Your task to perform on an android device: change the clock display to show seconds Image 0: 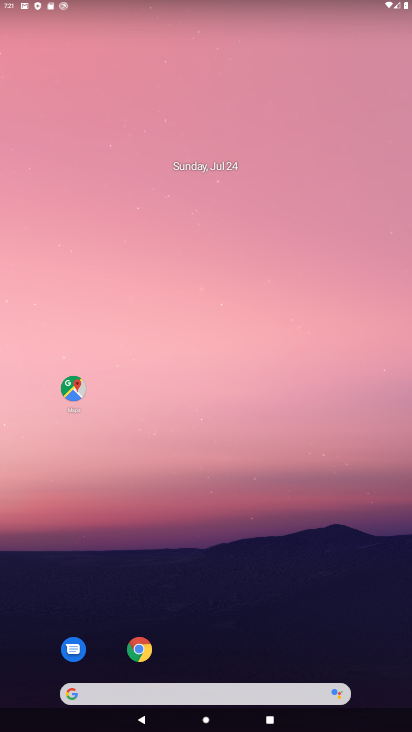
Step 0: drag from (232, 663) to (125, 189)
Your task to perform on an android device: change the clock display to show seconds Image 1: 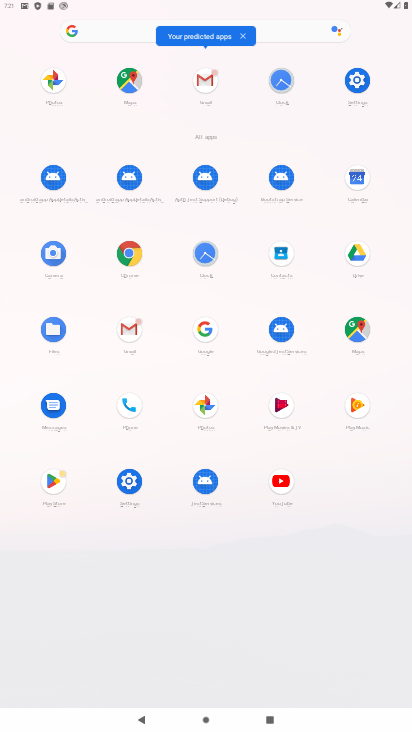
Step 1: click (195, 266)
Your task to perform on an android device: change the clock display to show seconds Image 2: 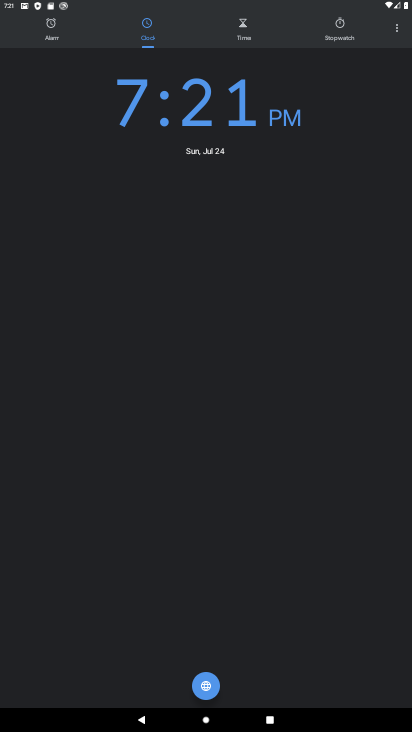
Step 2: click (400, 31)
Your task to perform on an android device: change the clock display to show seconds Image 3: 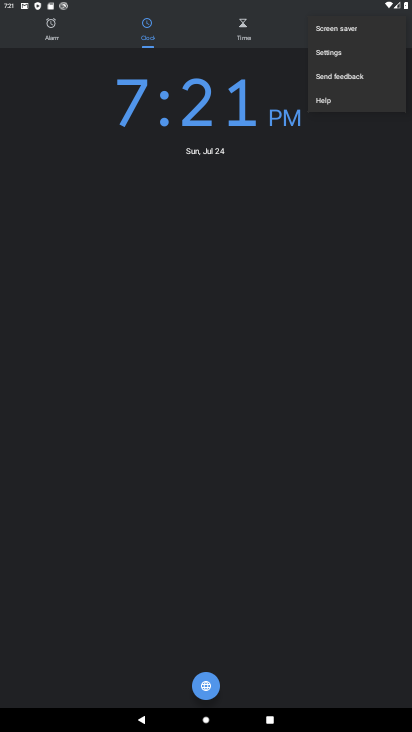
Step 3: click (322, 56)
Your task to perform on an android device: change the clock display to show seconds Image 4: 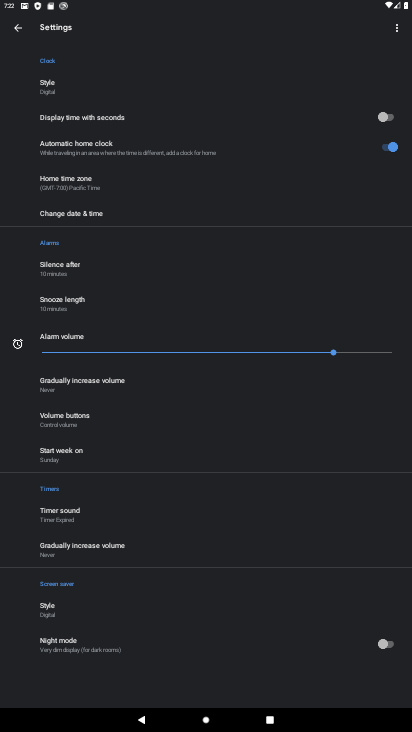
Step 4: click (381, 125)
Your task to perform on an android device: change the clock display to show seconds Image 5: 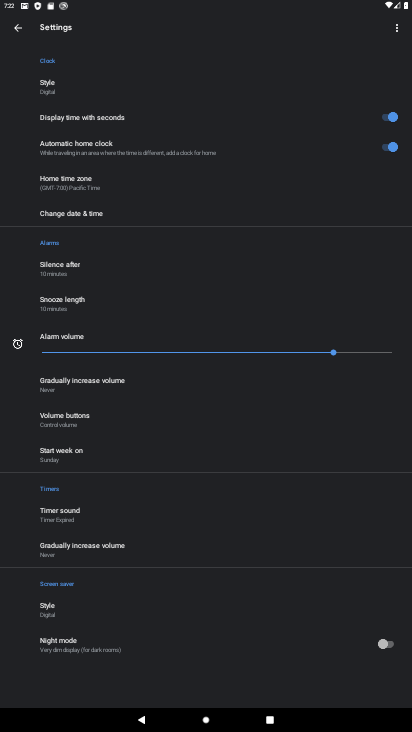
Step 5: task complete